Your task to perform on an android device: delete browsing data in the chrome app Image 0: 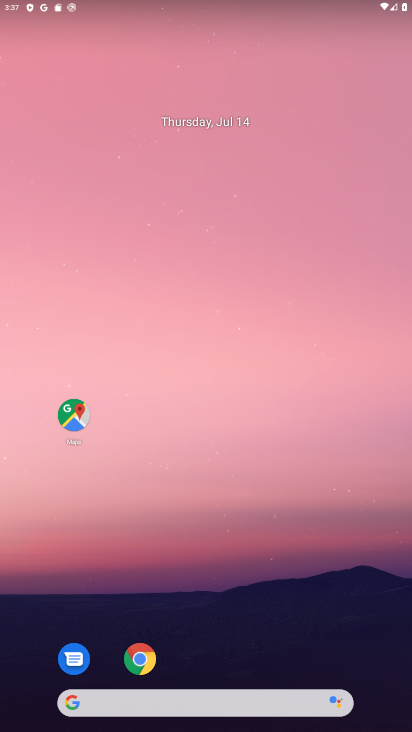
Step 0: drag from (281, 659) to (327, 135)
Your task to perform on an android device: delete browsing data in the chrome app Image 1: 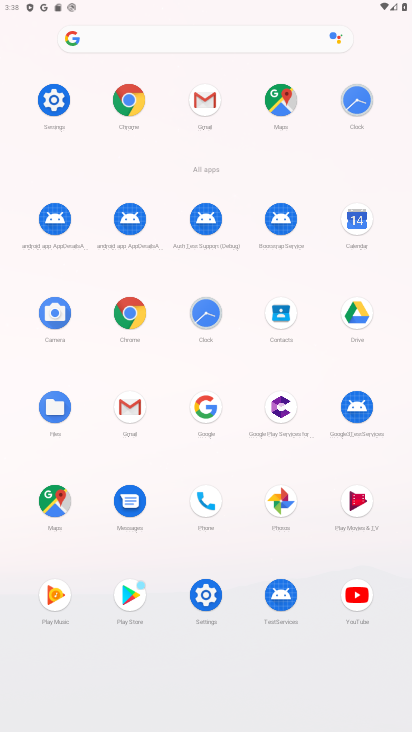
Step 1: click (129, 306)
Your task to perform on an android device: delete browsing data in the chrome app Image 2: 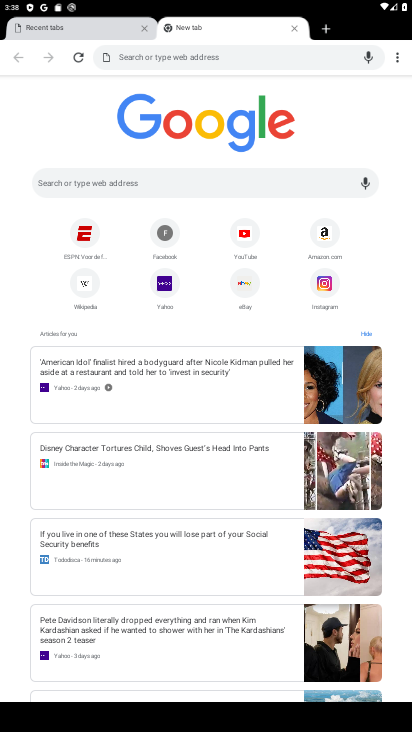
Step 2: click (398, 62)
Your task to perform on an android device: delete browsing data in the chrome app Image 3: 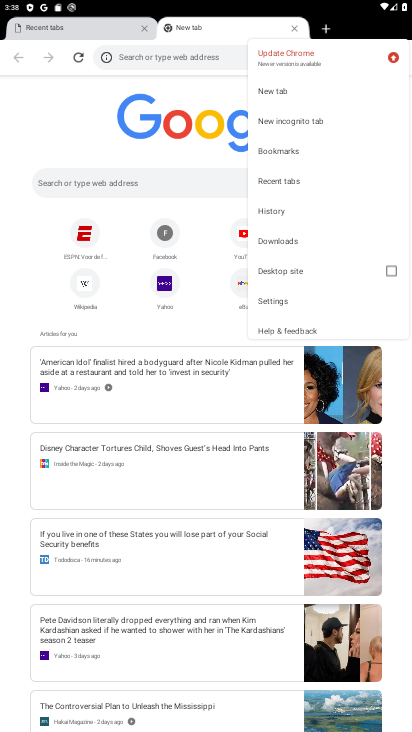
Step 3: click (278, 303)
Your task to perform on an android device: delete browsing data in the chrome app Image 4: 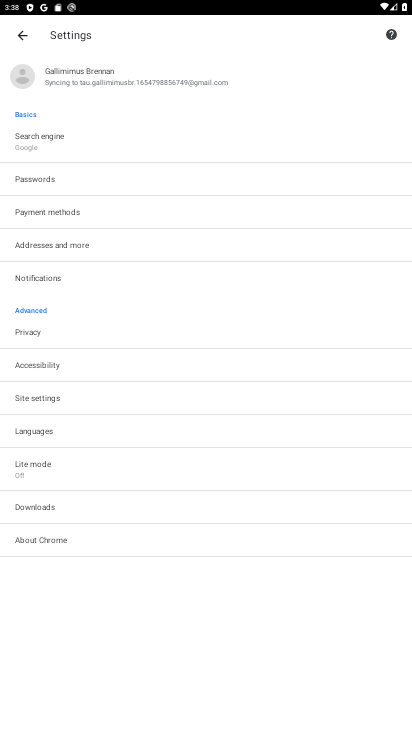
Step 4: click (161, 330)
Your task to perform on an android device: delete browsing data in the chrome app Image 5: 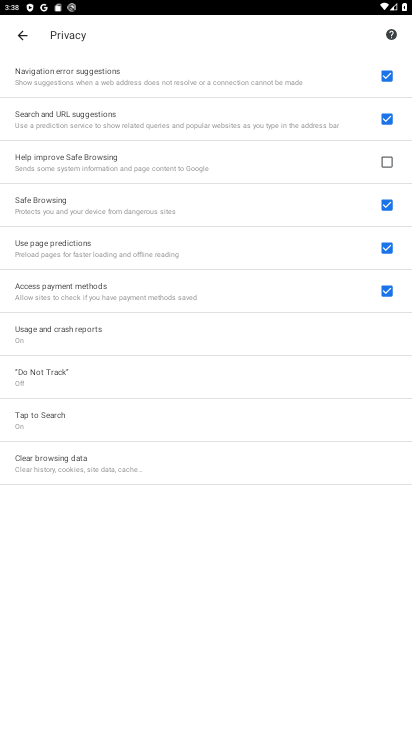
Step 5: click (165, 455)
Your task to perform on an android device: delete browsing data in the chrome app Image 6: 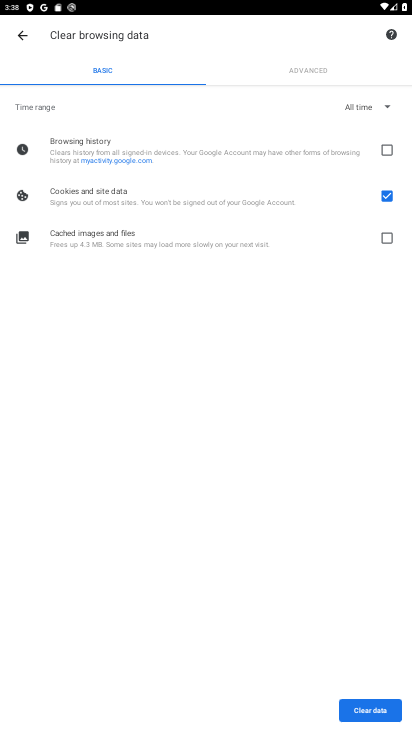
Step 6: click (384, 248)
Your task to perform on an android device: delete browsing data in the chrome app Image 7: 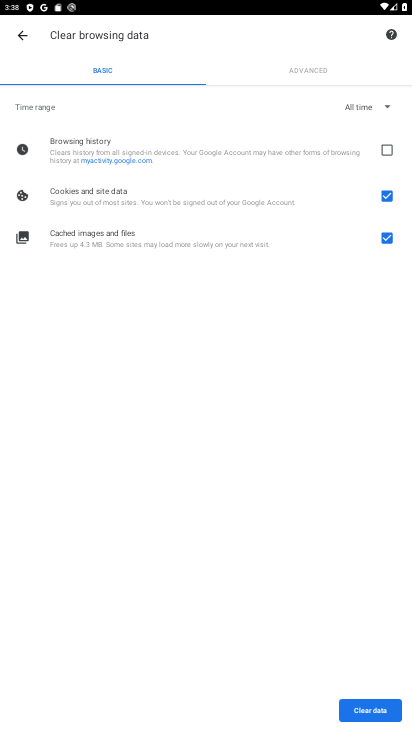
Step 7: click (392, 159)
Your task to perform on an android device: delete browsing data in the chrome app Image 8: 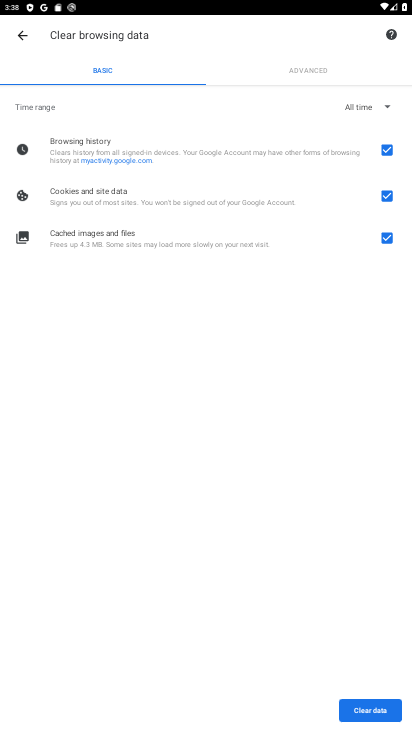
Step 8: click (379, 707)
Your task to perform on an android device: delete browsing data in the chrome app Image 9: 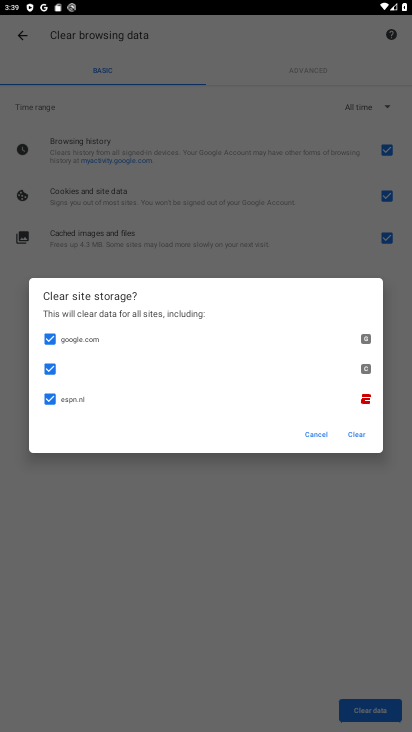
Step 9: click (364, 440)
Your task to perform on an android device: delete browsing data in the chrome app Image 10: 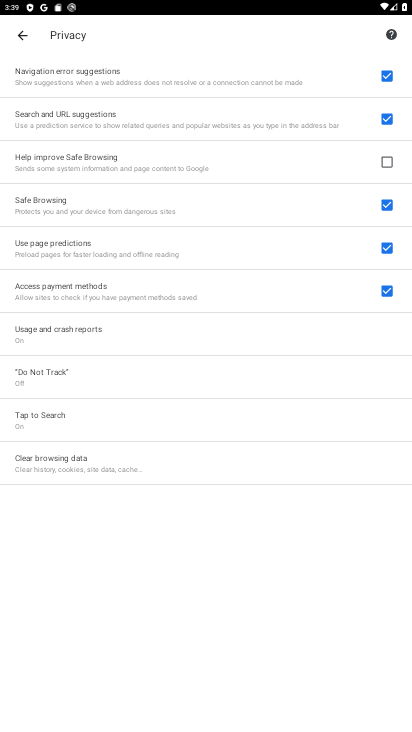
Step 10: task complete